Your task to perform on an android device: Open location settings Image 0: 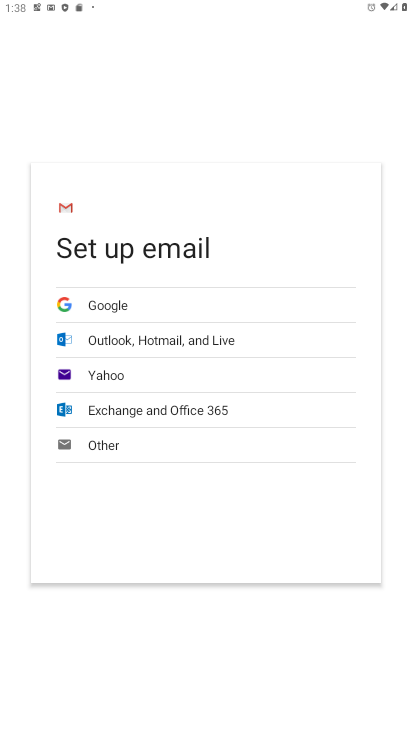
Step 0: press home button
Your task to perform on an android device: Open location settings Image 1: 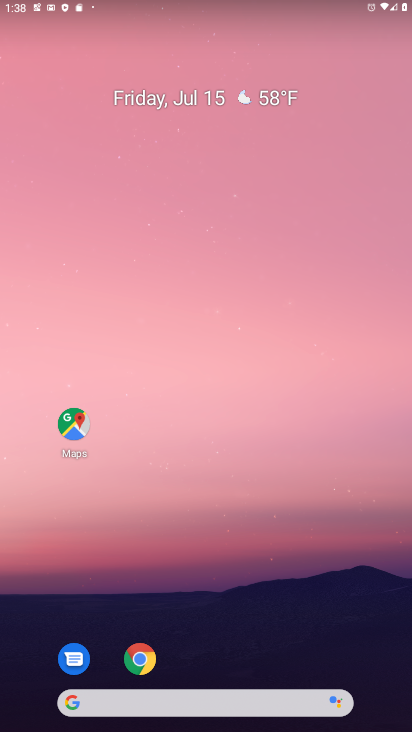
Step 1: drag from (214, 725) to (227, 153)
Your task to perform on an android device: Open location settings Image 2: 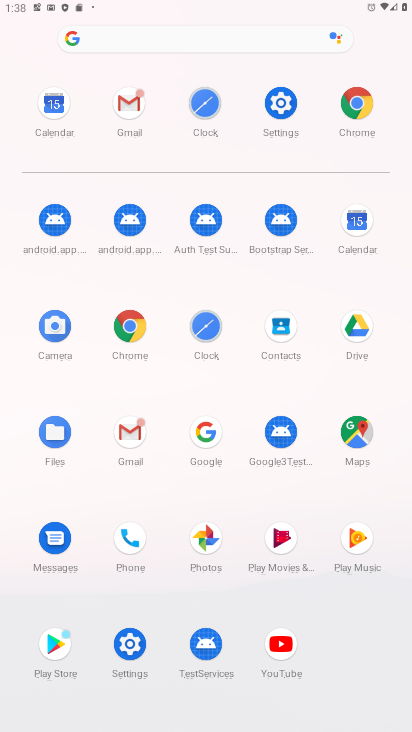
Step 2: click (281, 98)
Your task to perform on an android device: Open location settings Image 3: 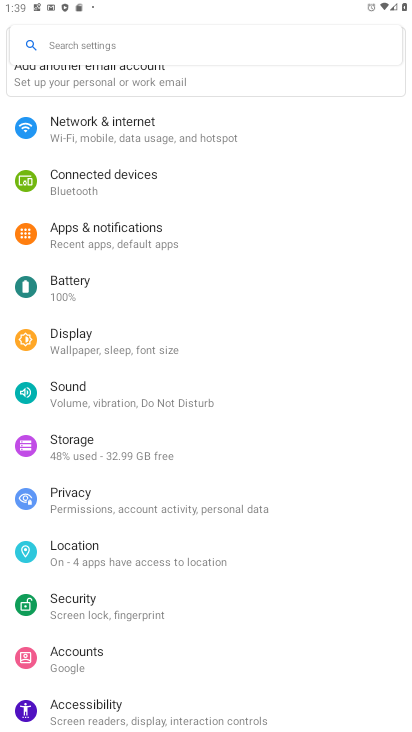
Step 3: click (72, 553)
Your task to perform on an android device: Open location settings Image 4: 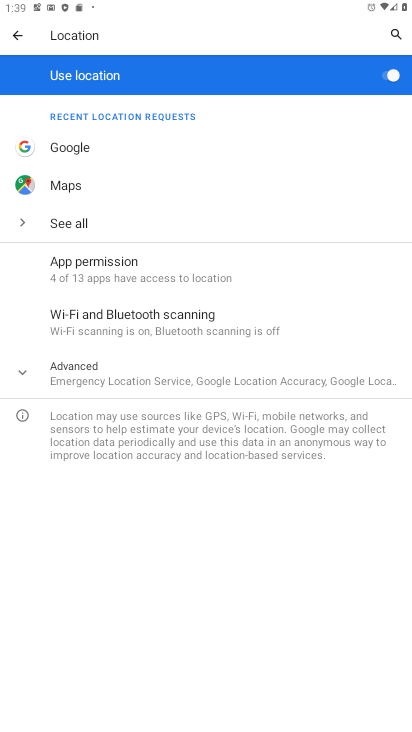
Step 4: task complete